Your task to perform on an android device: Go to Android settings Image 0: 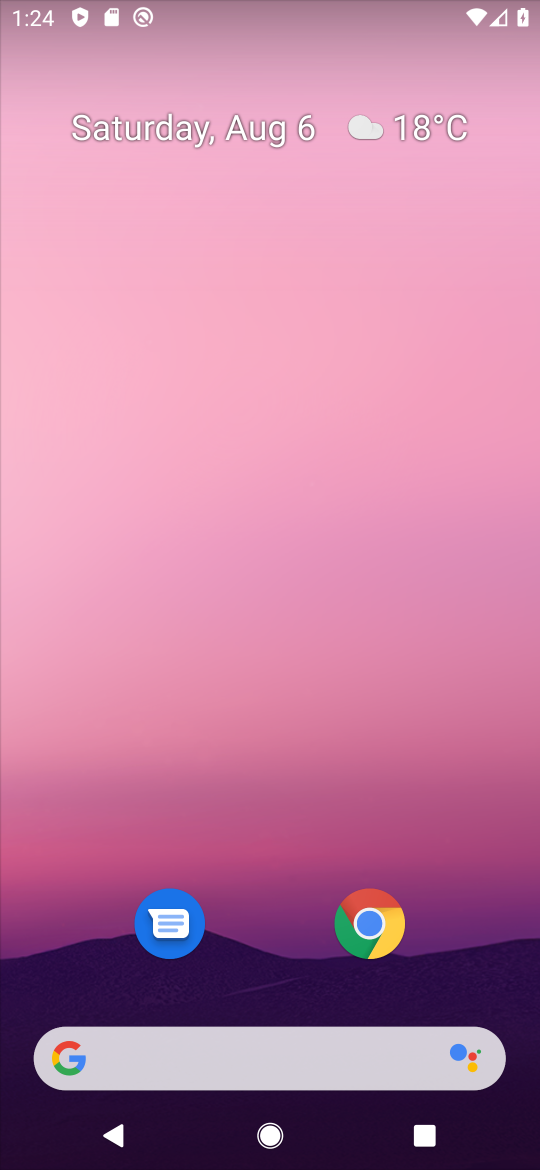
Step 0: drag from (243, 985) to (293, 424)
Your task to perform on an android device: Go to Android settings Image 1: 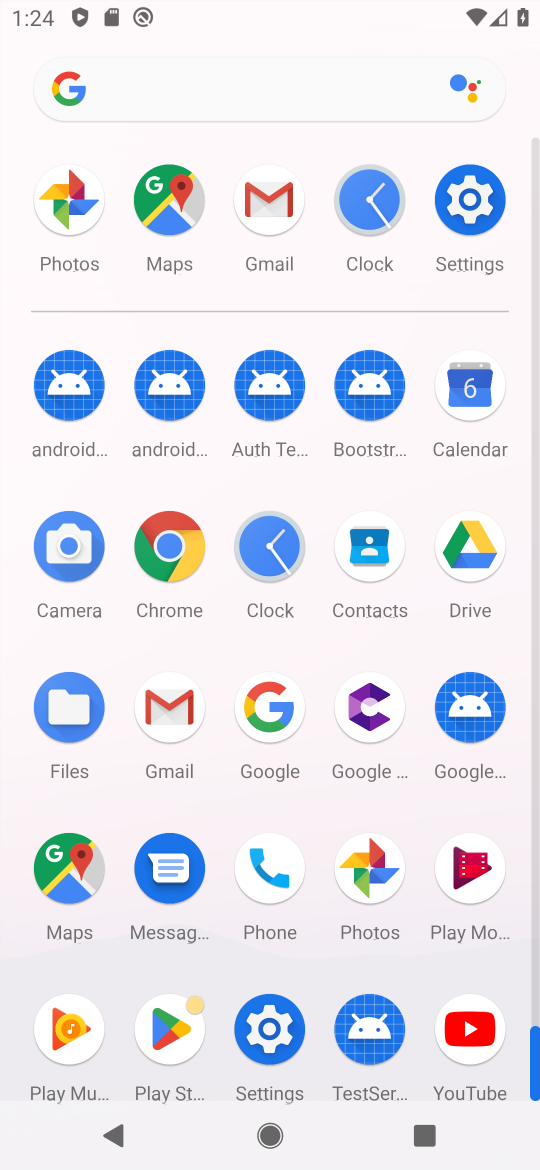
Step 1: click (255, 1033)
Your task to perform on an android device: Go to Android settings Image 2: 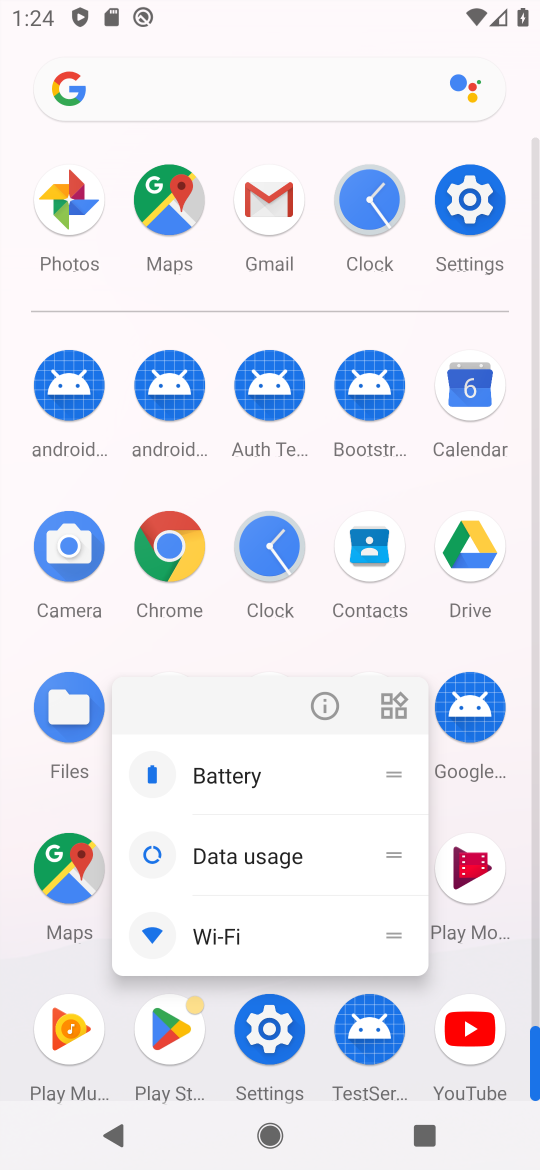
Step 2: click (327, 703)
Your task to perform on an android device: Go to Android settings Image 3: 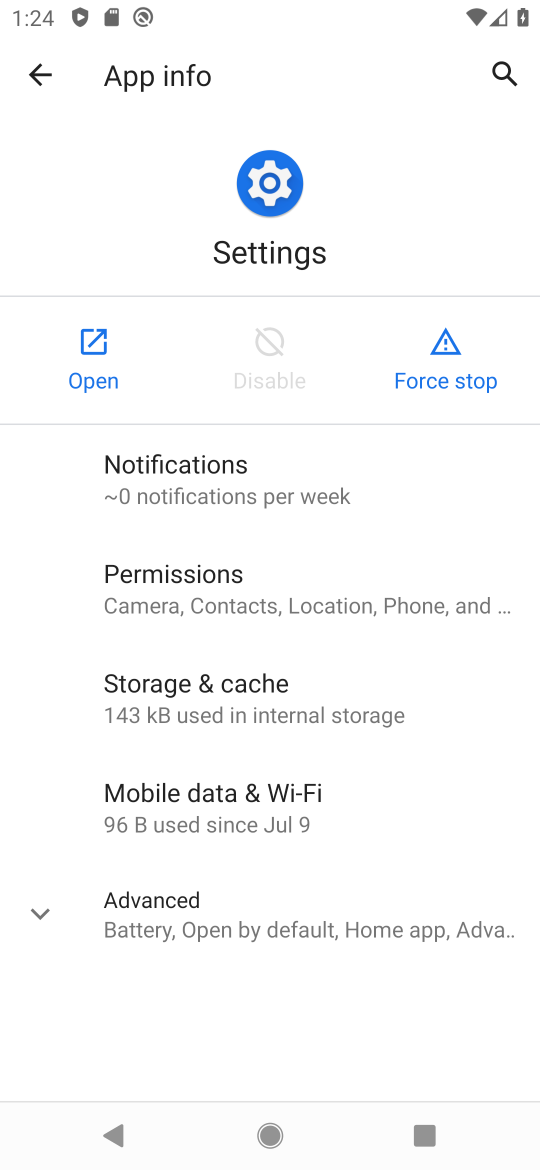
Step 3: click (100, 340)
Your task to perform on an android device: Go to Android settings Image 4: 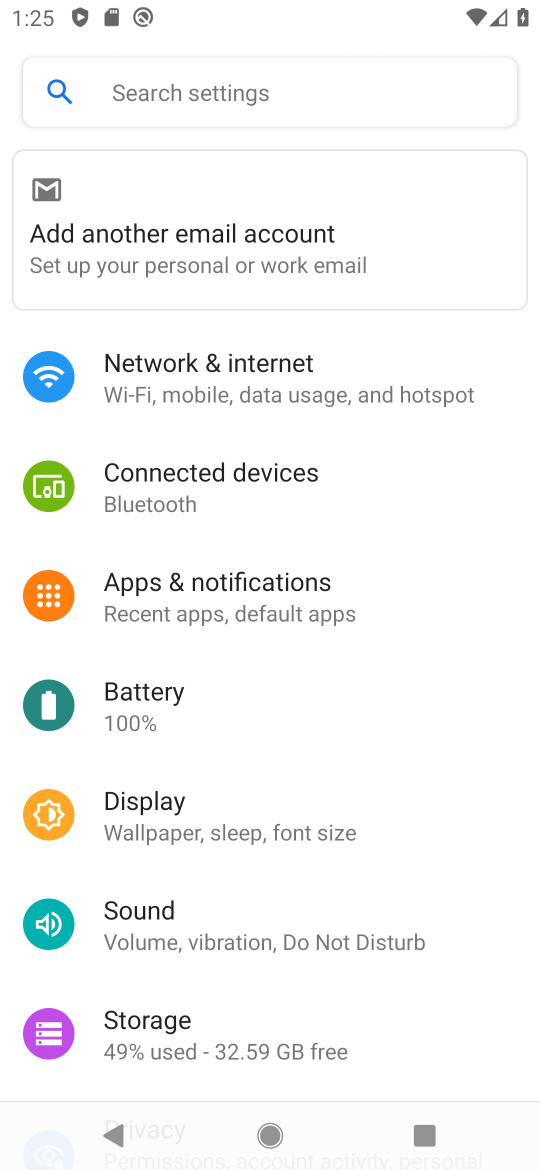
Step 4: drag from (221, 889) to (272, 326)
Your task to perform on an android device: Go to Android settings Image 5: 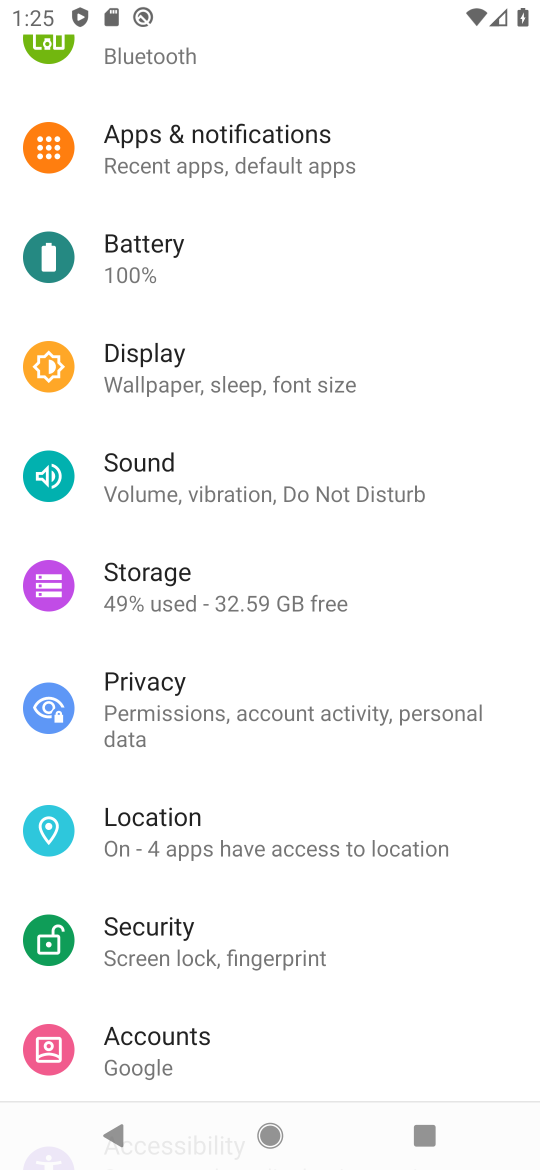
Step 5: drag from (251, 959) to (288, 324)
Your task to perform on an android device: Go to Android settings Image 6: 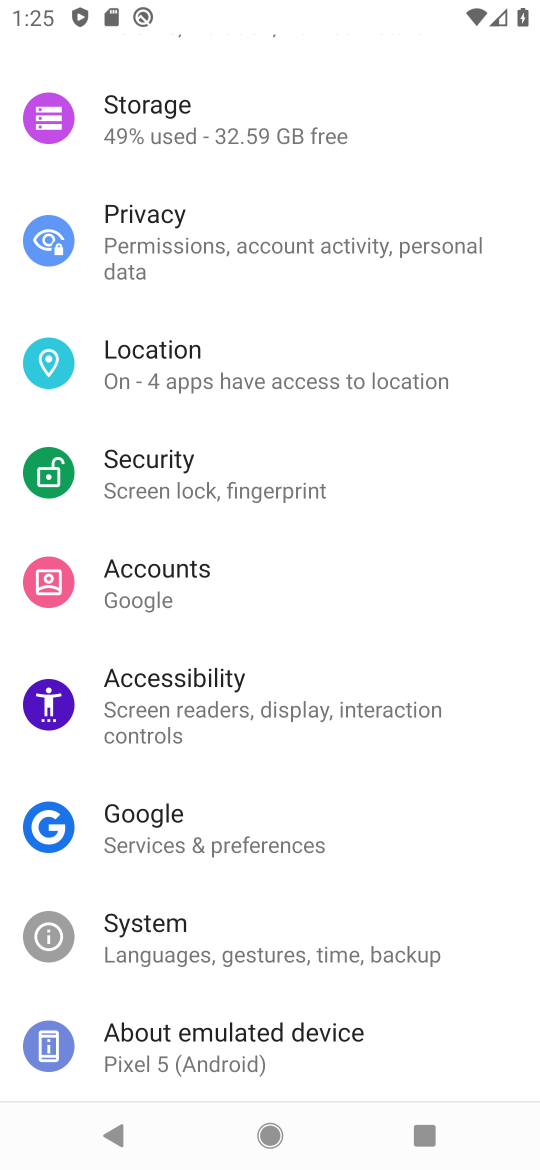
Step 6: drag from (234, 917) to (302, 495)
Your task to perform on an android device: Go to Android settings Image 7: 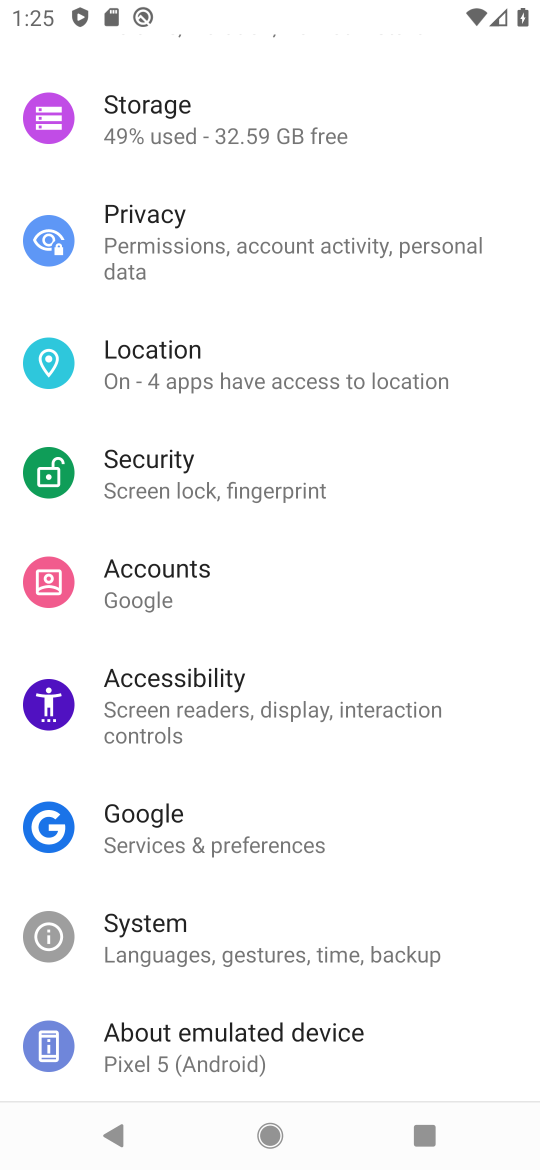
Step 7: click (241, 1049)
Your task to perform on an android device: Go to Android settings Image 8: 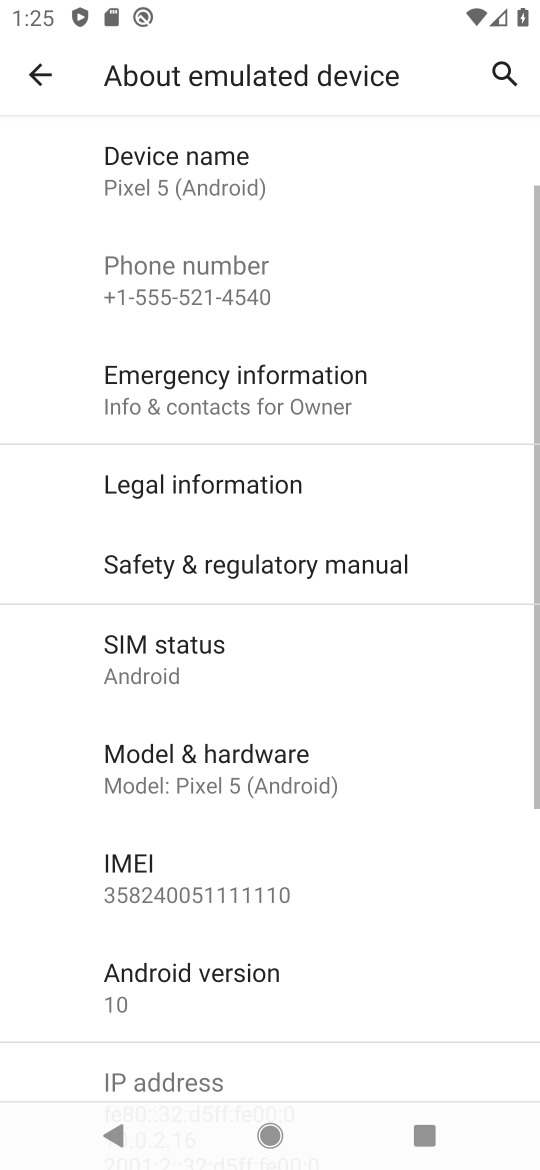
Step 8: click (184, 990)
Your task to perform on an android device: Go to Android settings Image 9: 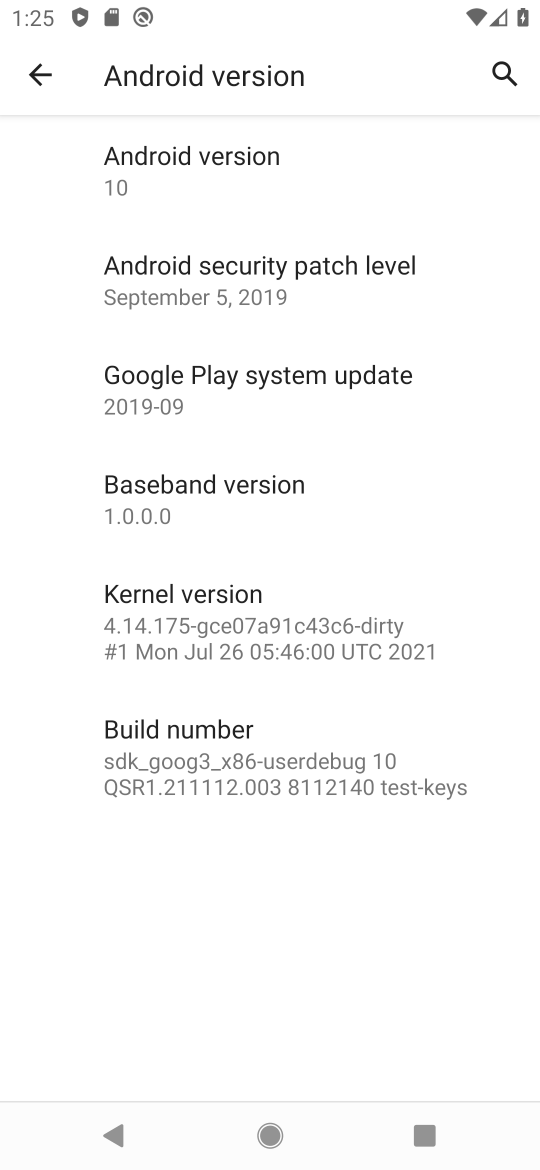
Step 9: drag from (224, 755) to (315, 449)
Your task to perform on an android device: Go to Android settings Image 10: 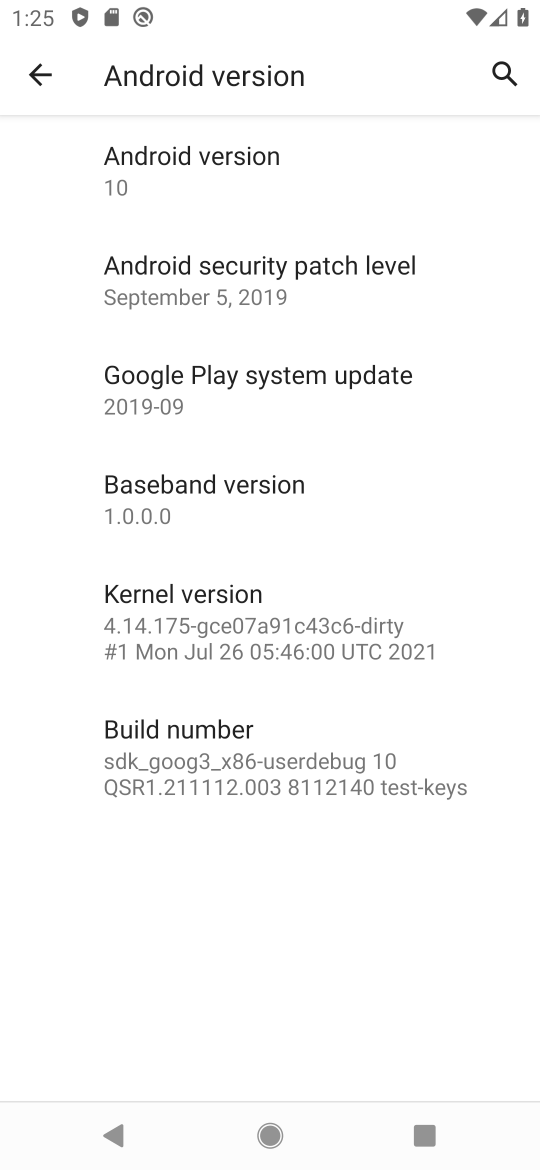
Step 10: click (204, 185)
Your task to perform on an android device: Go to Android settings Image 11: 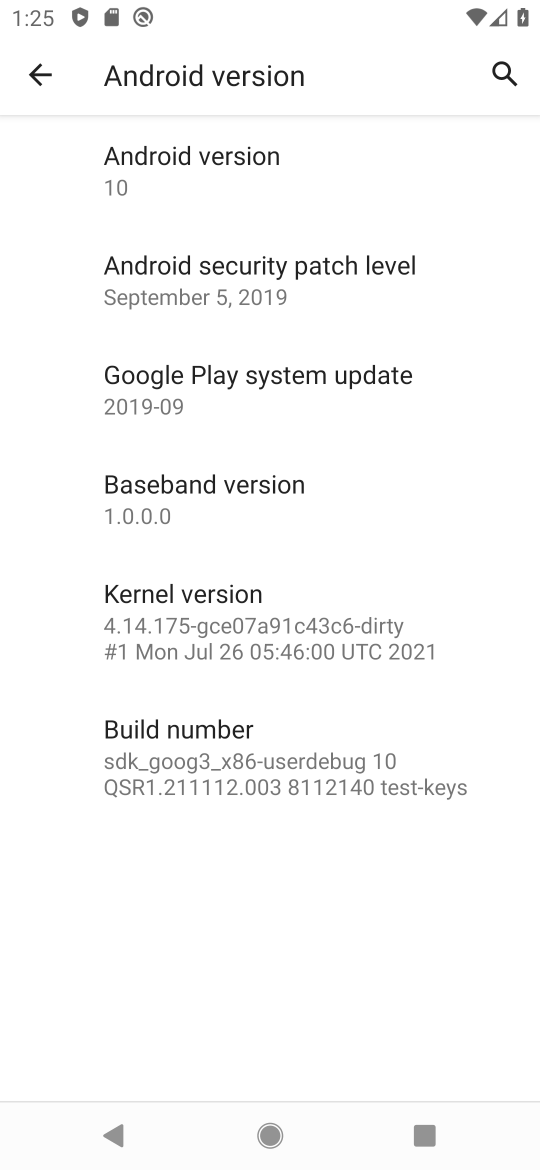
Step 11: task complete